Your task to perform on an android device: What's on my calendar today? Image 0: 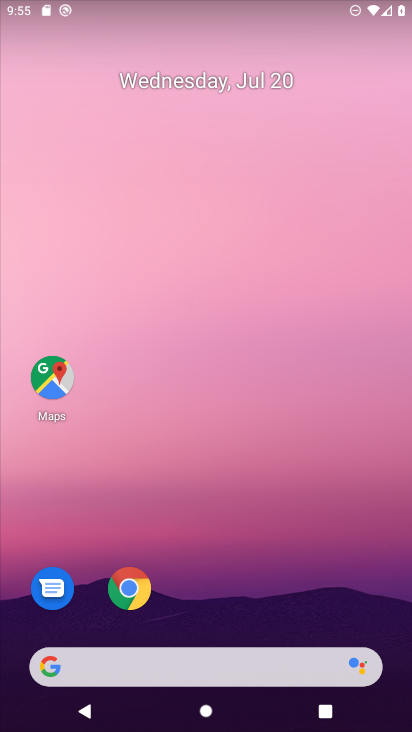
Step 0: click (248, 77)
Your task to perform on an android device: What's on my calendar today? Image 1: 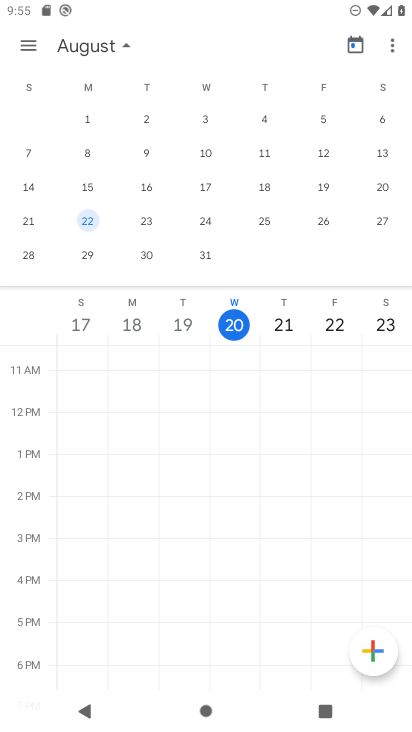
Step 1: drag from (30, 266) to (360, 264)
Your task to perform on an android device: What's on my calendar today? Image 2: 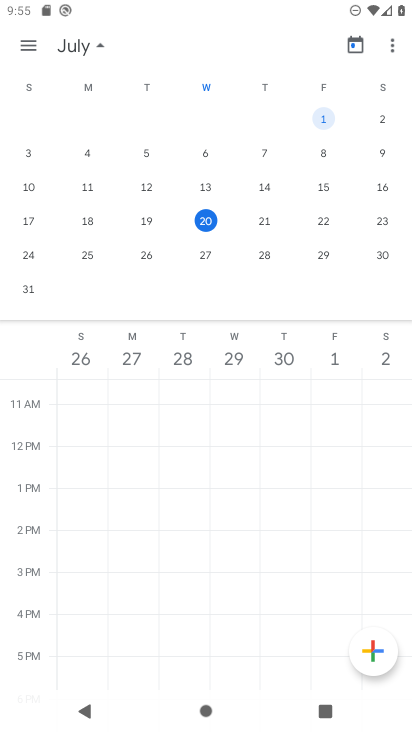
Step 2: click (206, 214)
Your task to perform on an android device: What's on my calendar today? Image 3: 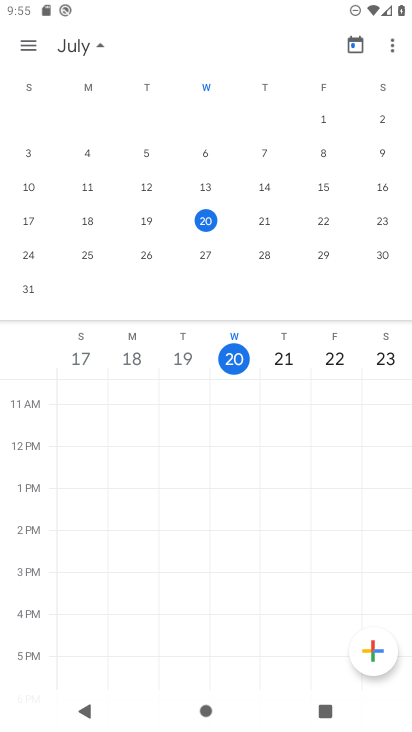
Step 3: task complete